Your task to perform on an android device: turn on priority inbox in the gmail app Image 0: 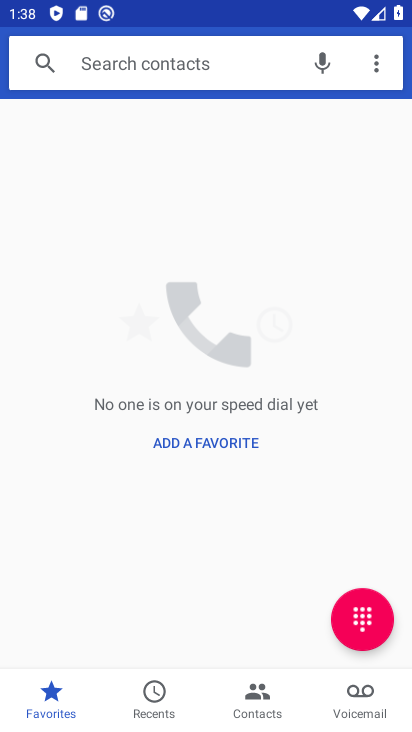
Step 0: press back button
Your task to perform on an android device: turn on priority inbox in the gmail app Image 1: 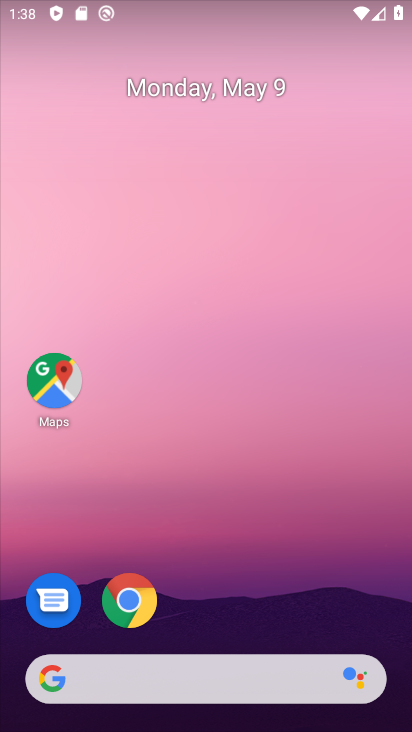
Step 1: drag from (282, 580) to (268, 49)
Your task to perform on an android device: turn on priority inbox in the gmail app Image 2: 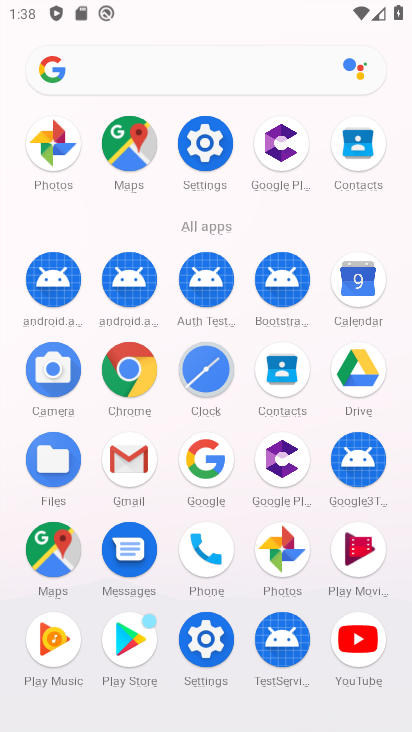
Step 2: click (126, 457)
Your task to perform on an android device: turn on priority inbox in the gmail app Image 3: 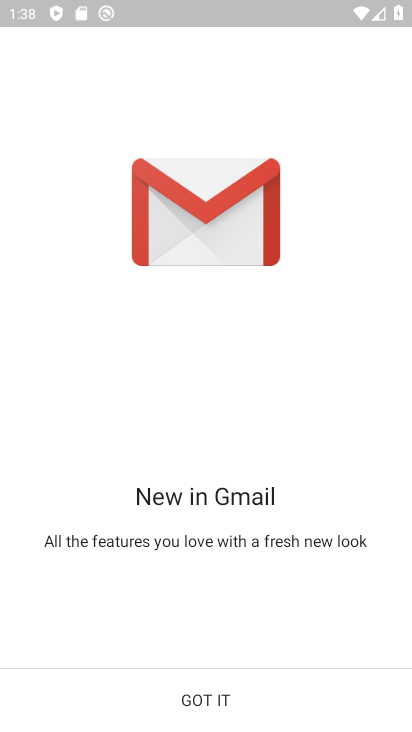
Step 3: click (223, 710)
Your task to perform on an android device: turn on priority inbox in the gmail app Image 4: 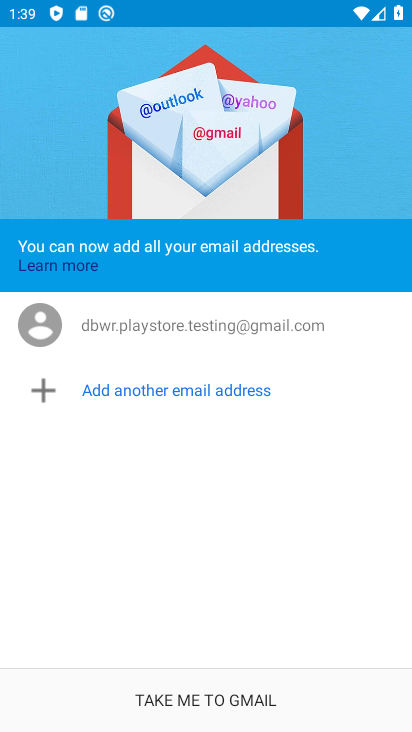
Step 4: click (233, 690)
Your task to perform on an android device: turn on priority inbox in the gmail app Image 5: 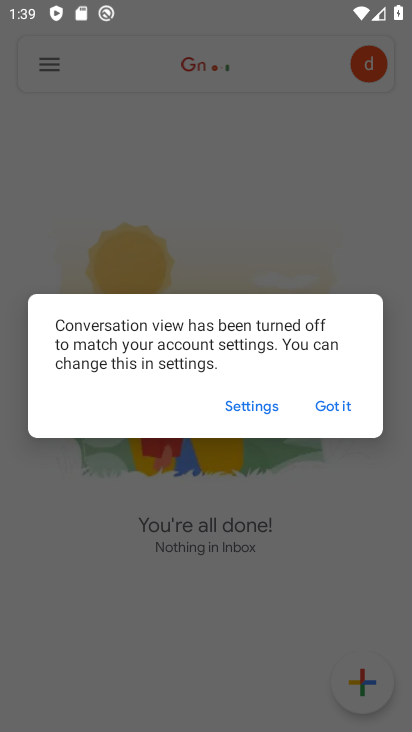
Step 5: click (329, 407)
Your task to perform on an android device: turn on priority inbox in the gmail app Image 6: 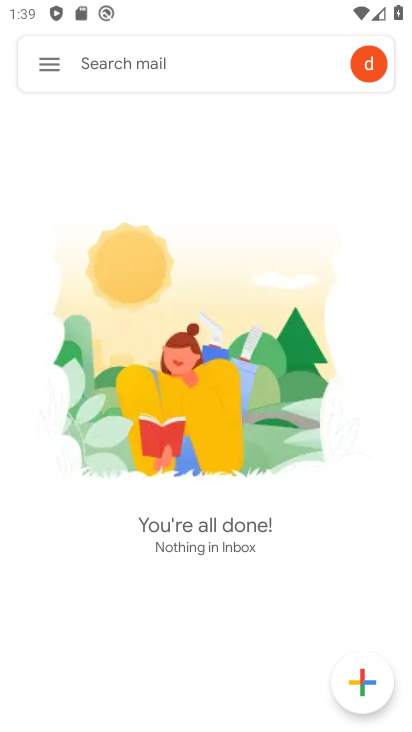
Step 6: click (43, 63)
Your task to perform on an android device: turn on priority inbox in the gmail app Image 7: 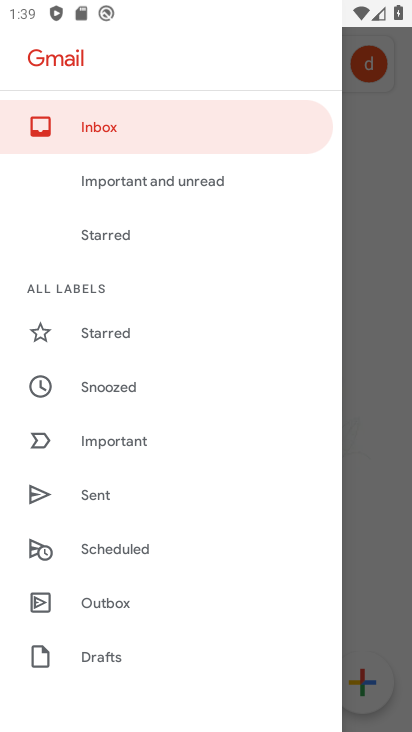
Step 7: drag from (171, 526) to (198, 85)
Your task to perform on an android device: turn on priority inbox in the gmail app Image 8: 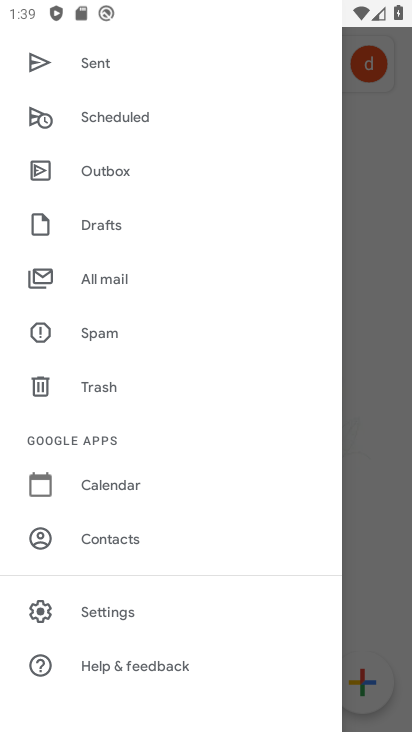
Step 8: drag from (218, 509) to (219, 73)
Your task to perform on an android device: turn on priority inbox in the gmail app Image 9: 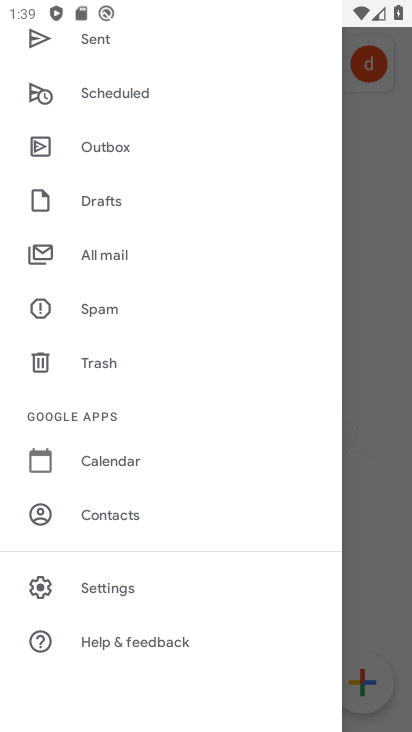
Step 9: drag from (204, 557) to (202, 153)
Your task to perform on an android device: turn on priority inbox in the gmail app Image 10: 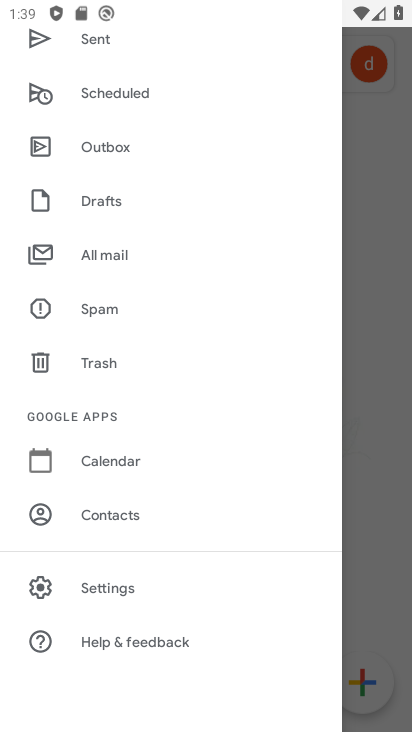
Step 10: drag from (188, 190) to (194, 643)
Your task to perform on an android device: turn on priority inbox in the gmail app Image 11: 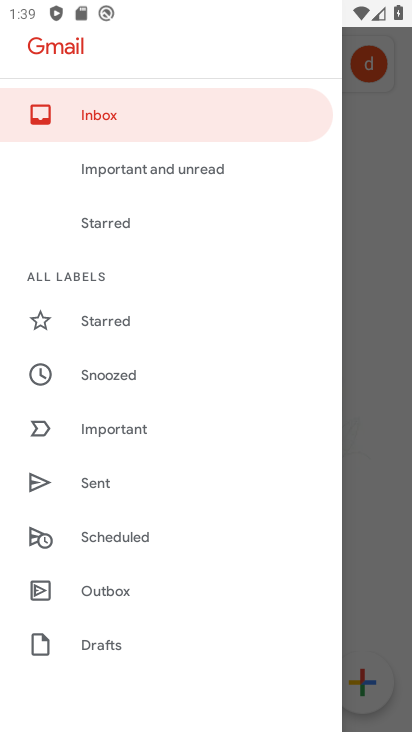
Step 11: drag from (125, 633) to (188, 136)
Your task to perform on an android device: turn on priority inbox in the gmail app Image 12: 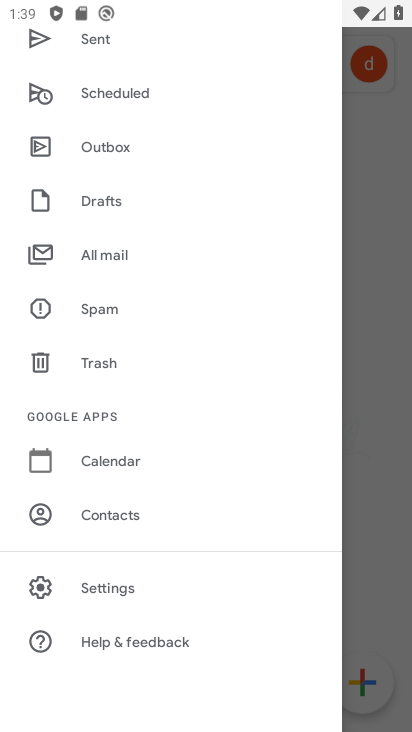
Step 12: click (102, 596)
Your task to perform on an android device: turn on priority inbox in the gmail app Image 13: 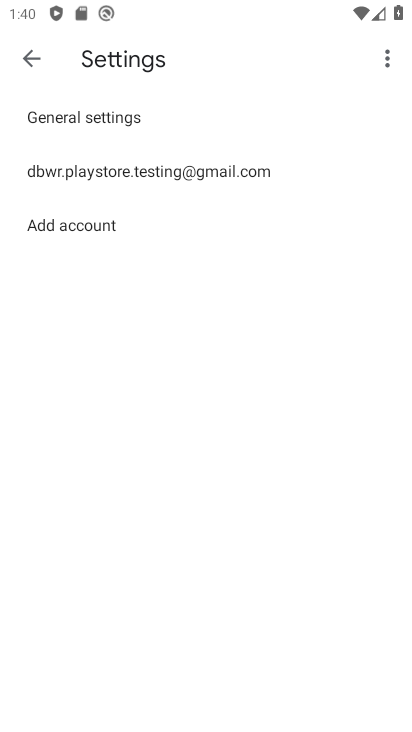
Step 13: click (125, 168)
Your task to perform on an android device: turn on priority inbox in the gmail app Image 14: 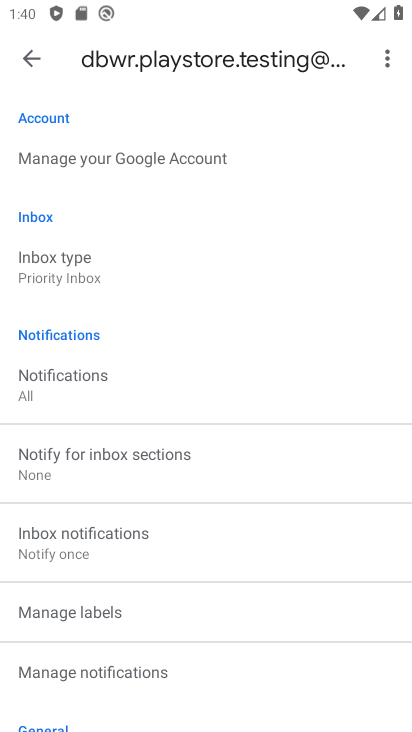
Step 14: task complete